Your task to perform on an android device: Open network settings Image 0: 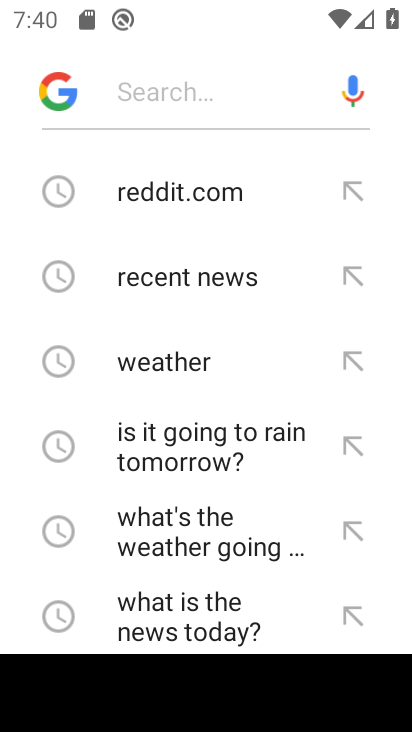
Step 0: press home button
Your task to perform on an android device: Open network settings Image 1: 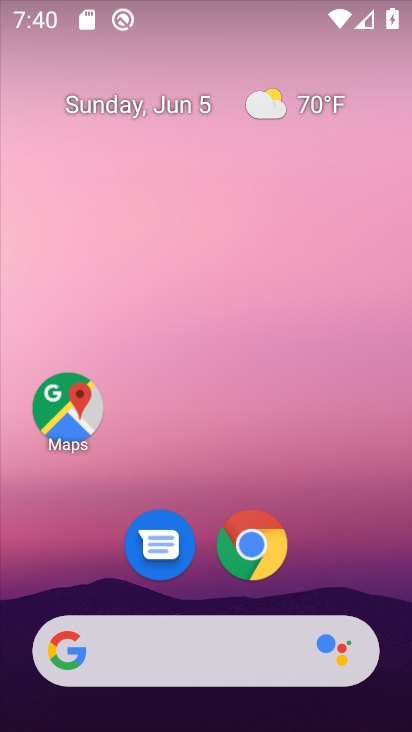
Step 1: drag from (226, 613) to (180, 159)
Your task to perform on an android device: Open network settings Image 2: 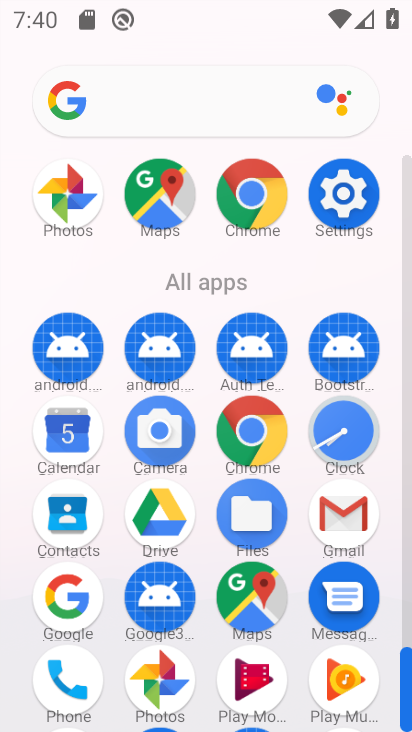
Step 2: click (346, 215)
Your task to perform on an android device: Open network settings Image 3: 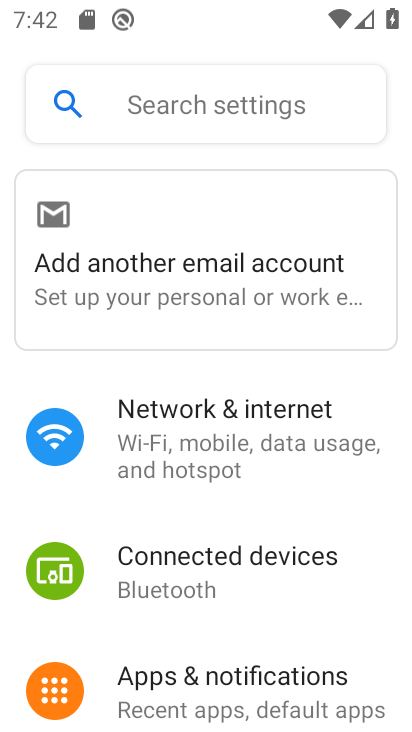
Step 3: click (250, 454)
Your task to perform on an android device: Open network settings Image 4: 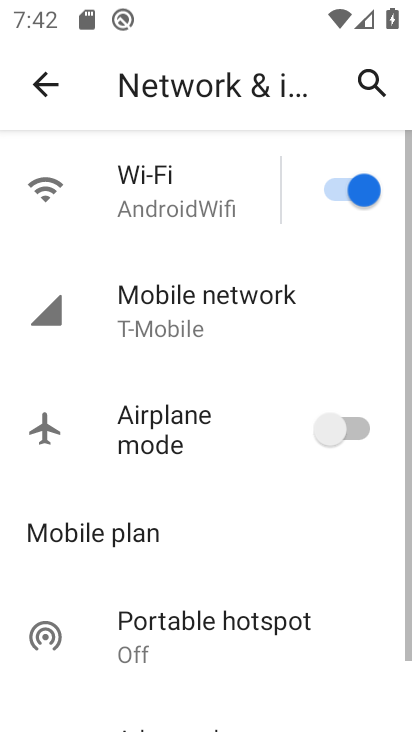
Step 4: click (229, 321)
Your task to perform on an android device: Open network settings Image 5: 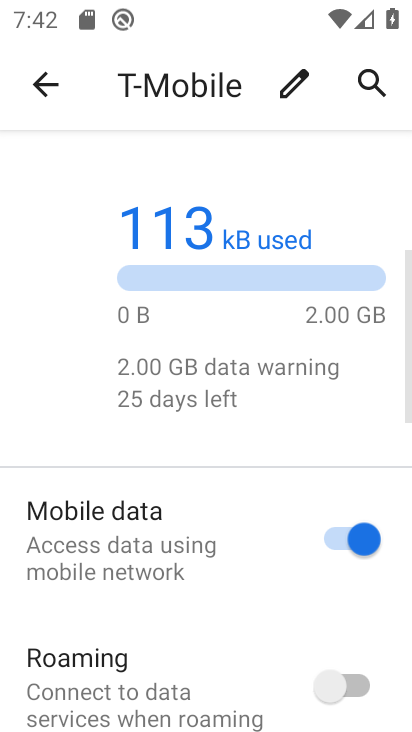
Step 5: task complete